Your task to perform on an android device: Open maps Image 0: 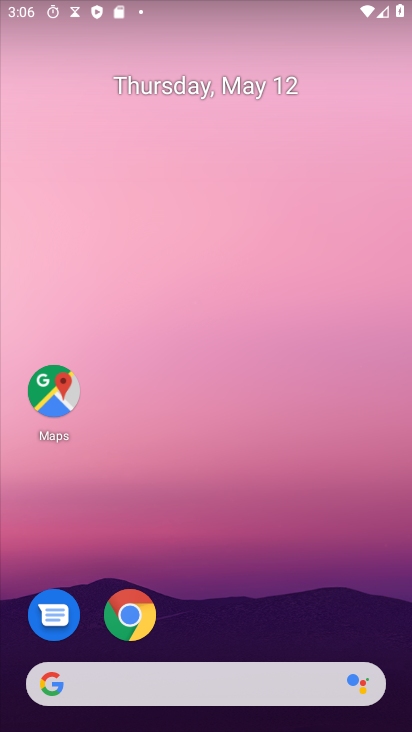
Step 0: press home button
Your task to perform on an android device: Open maps Image 1: 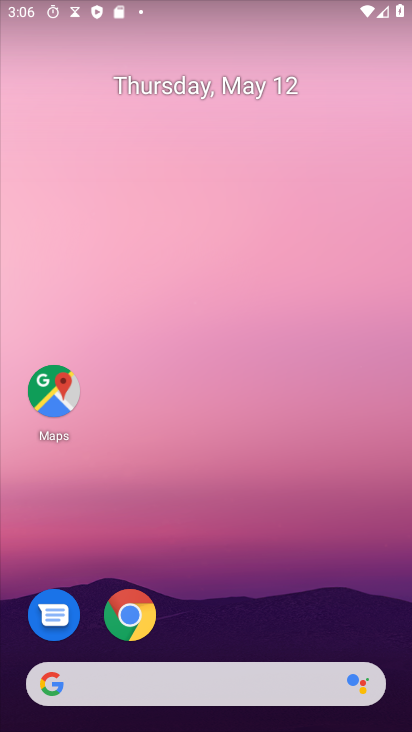
Step 1: click (40, 384)
Your task to perform on an android device: Open maps Image 2: 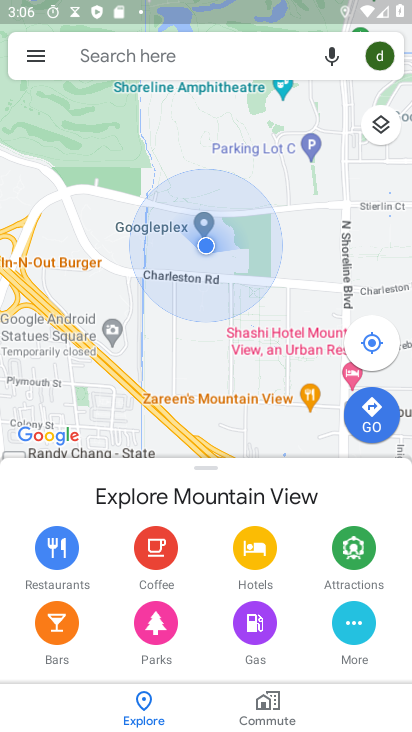
Step 2: task complete